Your task to perform on an android device: Go to Maps Image 0: 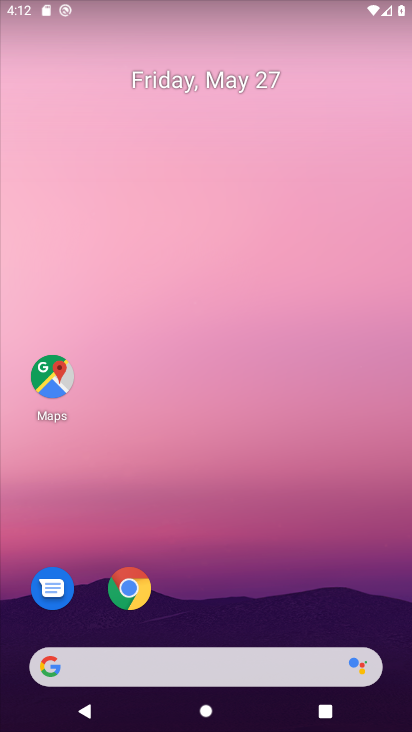
Step 0: click (63, 363)
Your task to perform on an android device: Go to Maps Image 1: 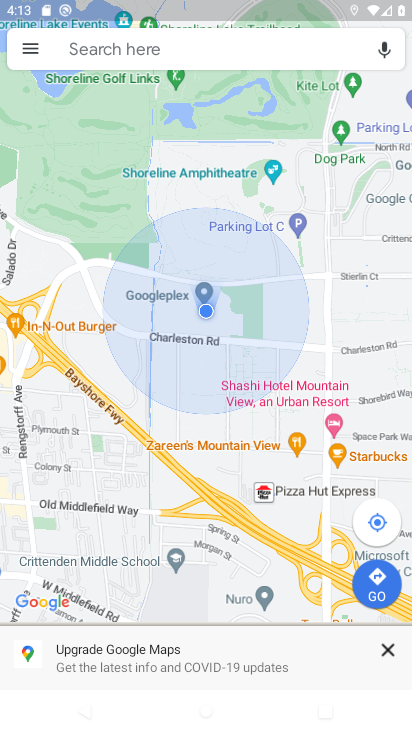
Step 1: task complete